Your task to perform on an android device: delete browsing data in the chrome app Image 0: 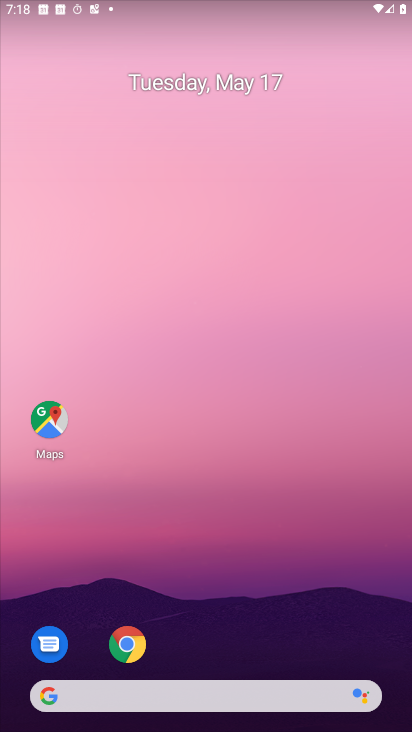
Step 0: drag from (365, 643) to (194, 64)
Your task to perform on an android device: delete browsing data in the chrome app Image 1: 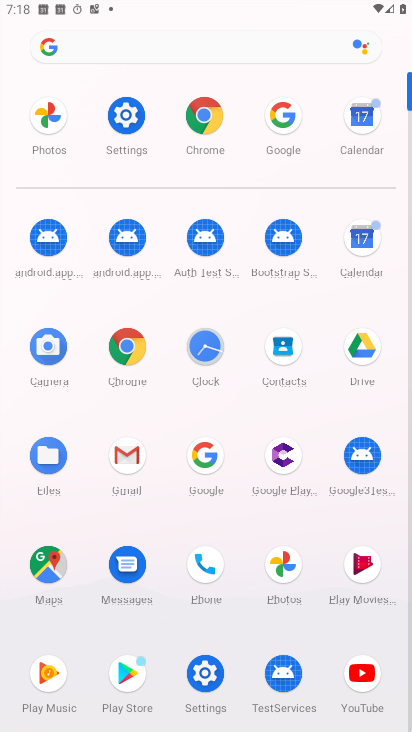
Step 1: click (121, 350)
Your task to perform on an android device: delete browsing data in the chrome app Image 2: 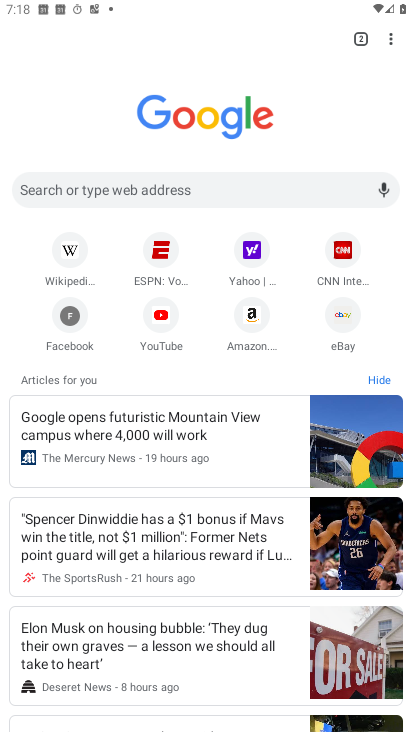
Step 2: click (390, 40)
Your task to perform on an android device: delete browsing data in the chrome app Image 3: 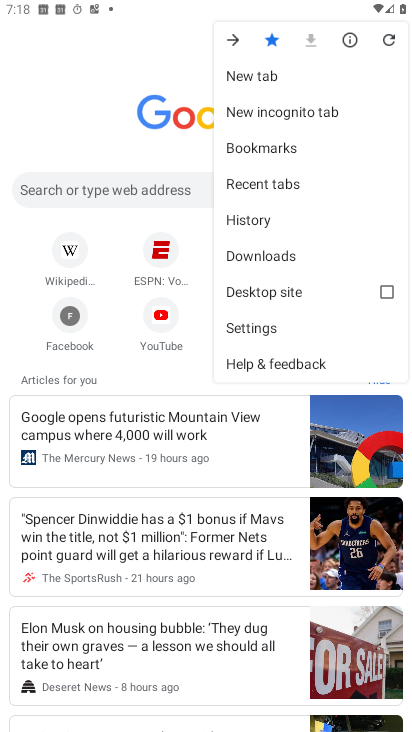
Step 3: click (253, 219)
Your task to perform on an android device: delete browsing data in the chrome app Image 4: 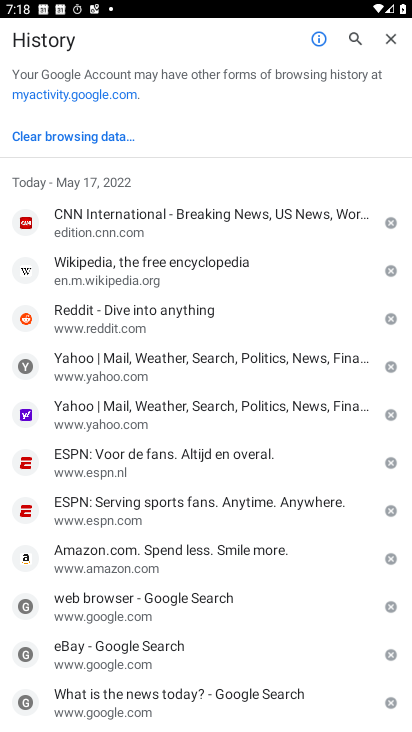
Step 4: click (71, 134)
Your task to perform on an android device: delete browsing data in the chrome app Image 5: 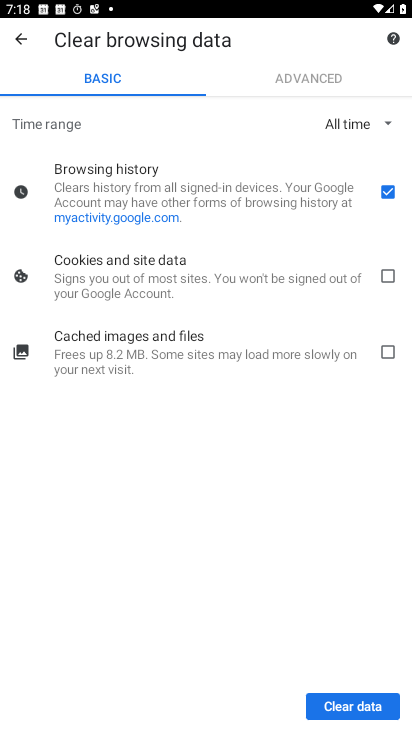
Step 5: click (355, 292)
Your task to perform on an android device: delete browsing data in the chrome app Image 6: 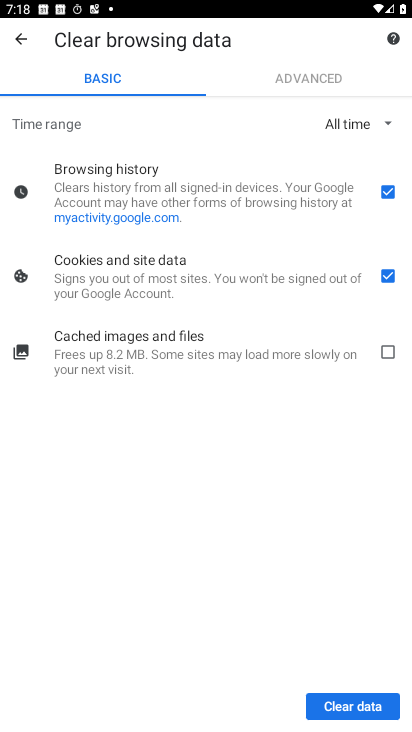
Step 6: click (342, 698)
Your task to perform on an android device: delete browsing data in the chrome app Image 7: 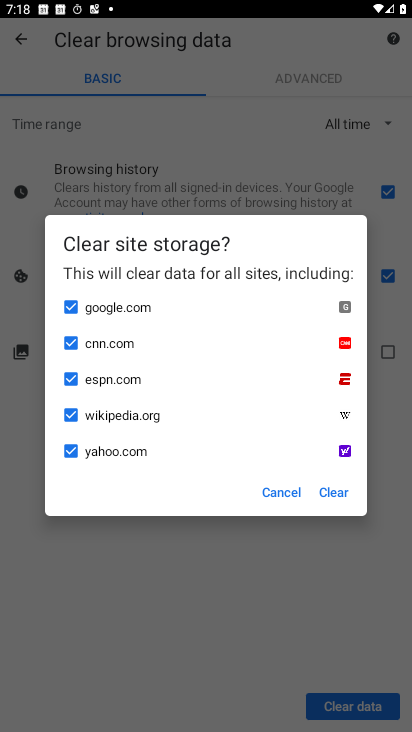
Step 7: click (333, 478)
Your task to perform on an android device: delete browsing data in the chrome app Image 8: 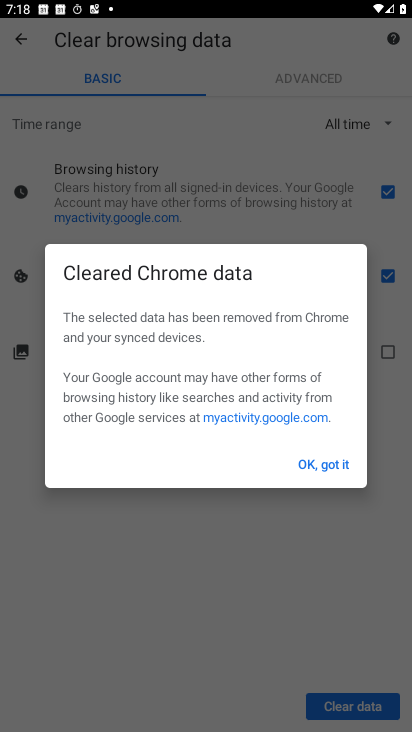
Step 8: click (340, 474)
Your task to perform on an android device: delete browsing data in the chrome app Image 9: 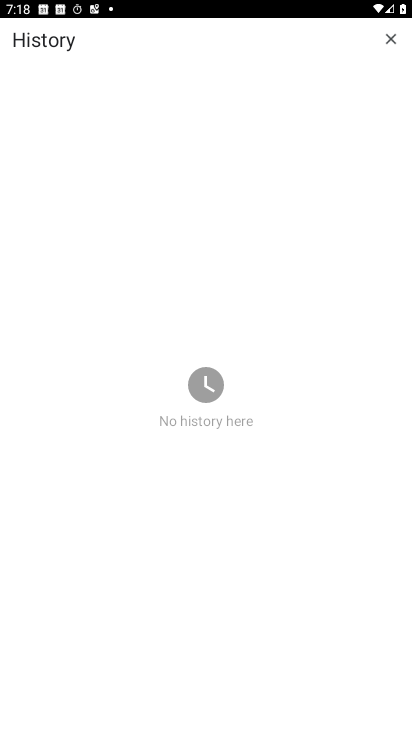
Step 9: task complete